Your task to perform on an android device: What's the weather? Image 0: 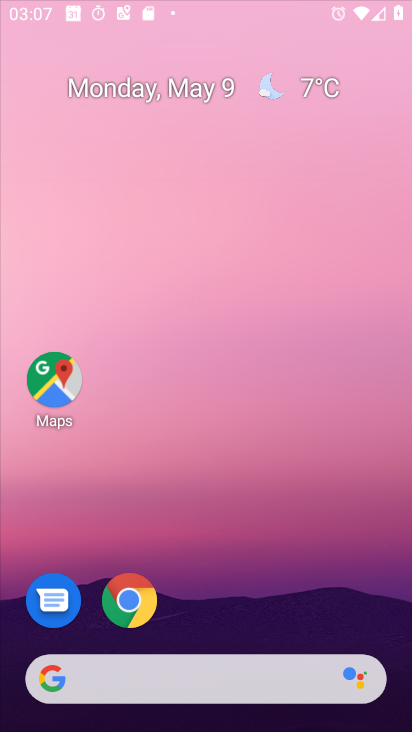
Step 0: click (169, 133)
Your task to perform on an android device: What's the weather? Image 1: 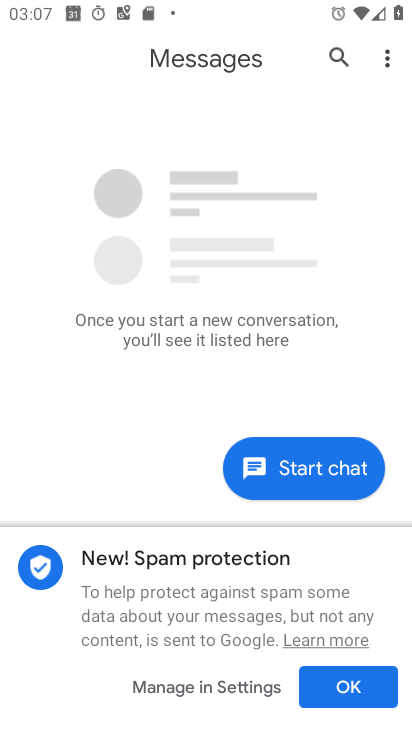
Step 1: press home button
Your task to perform on an android device: What's the weather? Image 2: 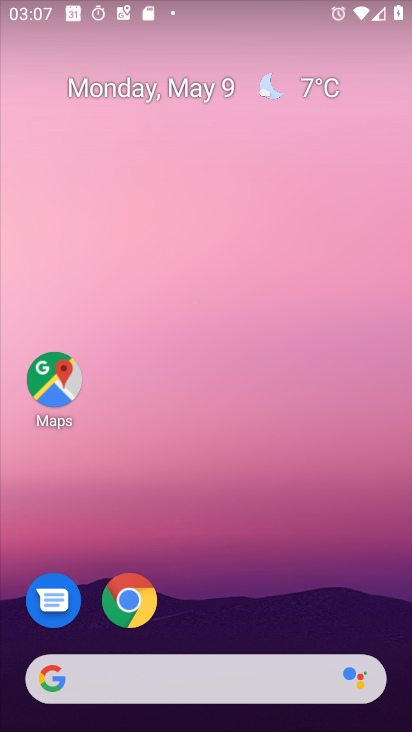
Step 2: click (315, 97)
Your task to perform on an android device: What's the weather? Image 3: 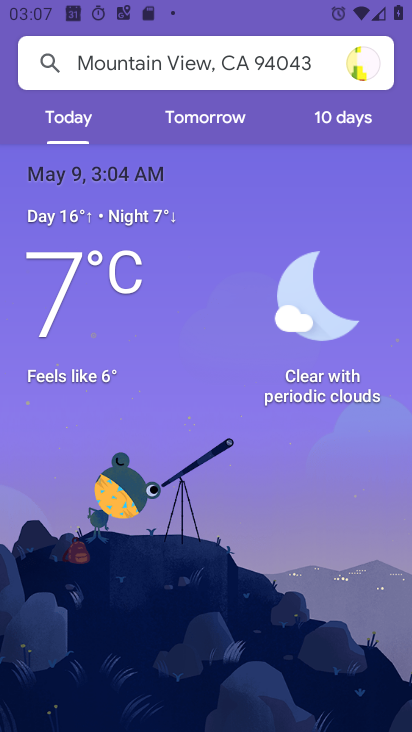
Step 3: task complete